Your task to perform on an android device: turn off sleep mode Image 0: 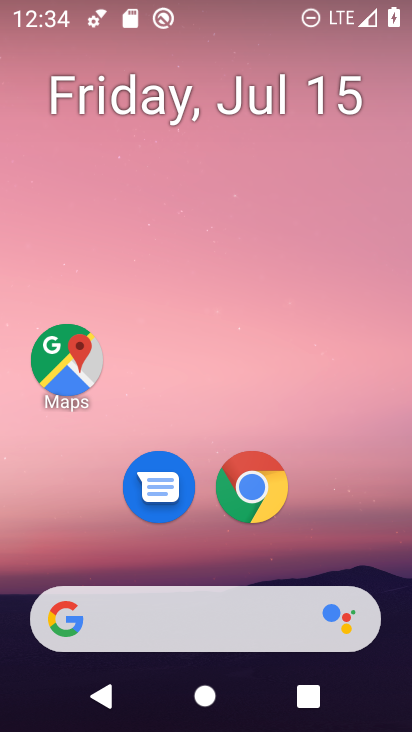
Step 0: click (404, 368)
Your task to perform on an android device: turn off sleep mode Image 1: 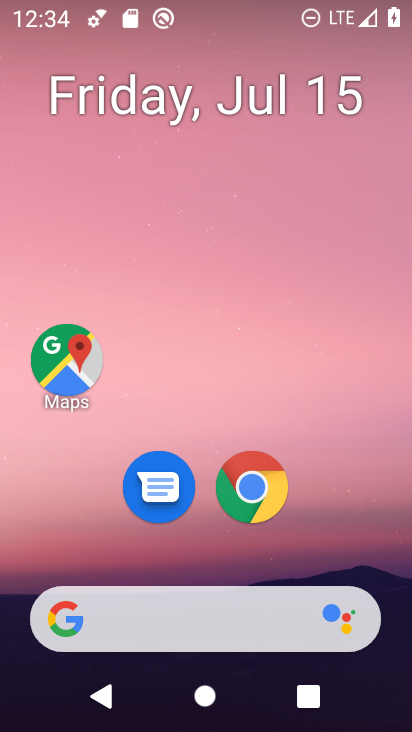
Step 1: drag from (252, 551) to (342, 155)
Your task to perform on an android device: turn off sleep mode Image 2: 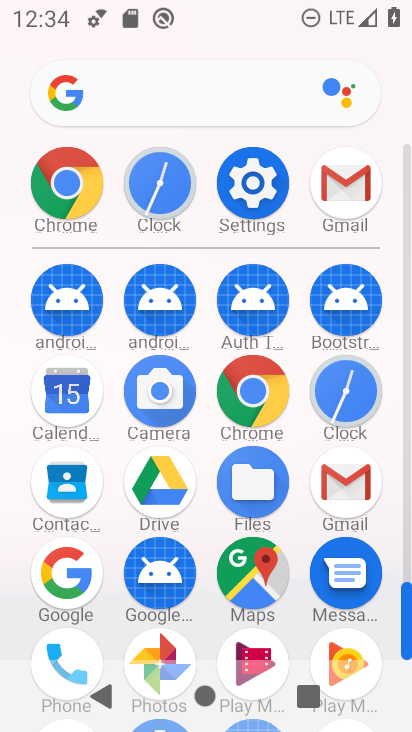
Step 2: click (266, 179)
Your task to perform on an android device: turn off sleep mode Image 3: 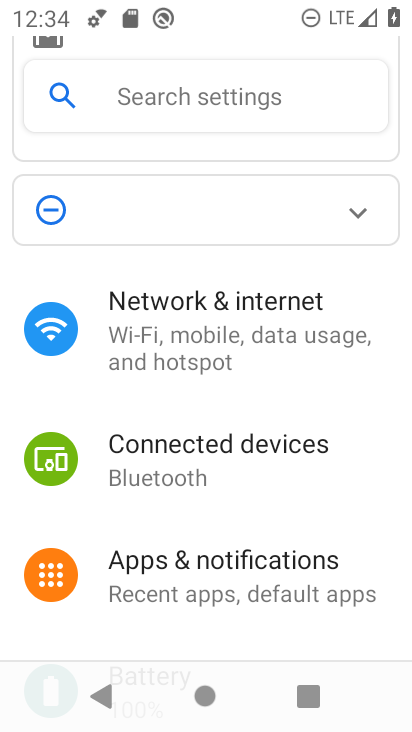
Step 3: drag from (206, 528) to (202, 175)
Your task to perform on an android device: turn off sleep mode Image 4: 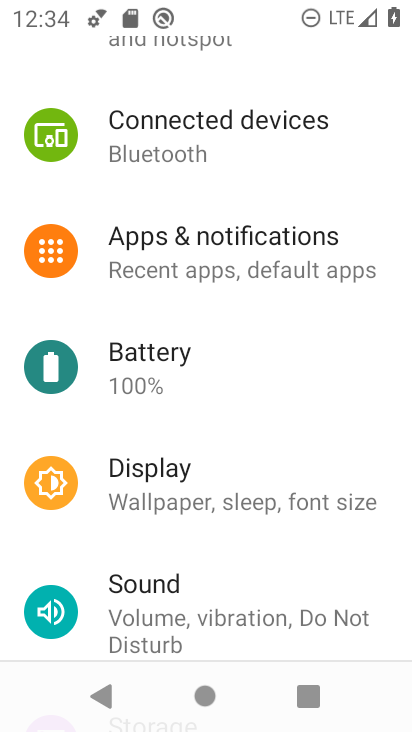
Step 4: drag from (194, 539) to (227, 340)
Your task to perform on an android device: turn off sleep mode Image 5: 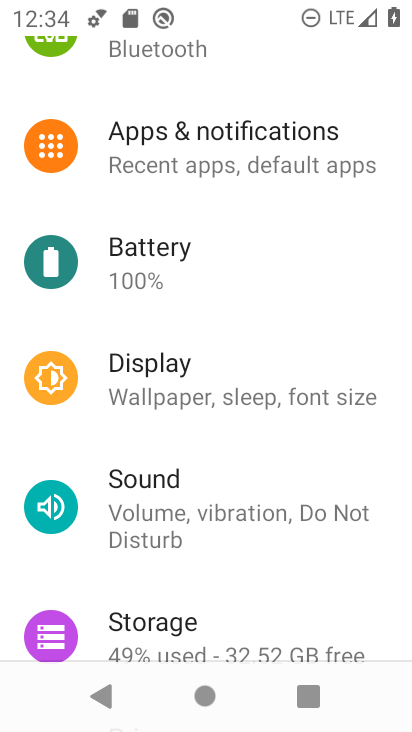
Step 5: drag from (185, 548) to (271, 211)
Your task to perform on an android device: turn off sleep mode Image 6: 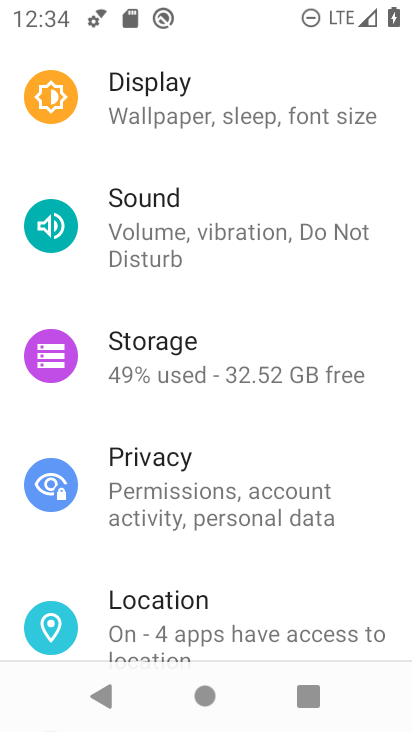
Step 6: drag from (204, 517) to (266, 140)
Your task to perform on an android device: turn off sleep mode Image 7: 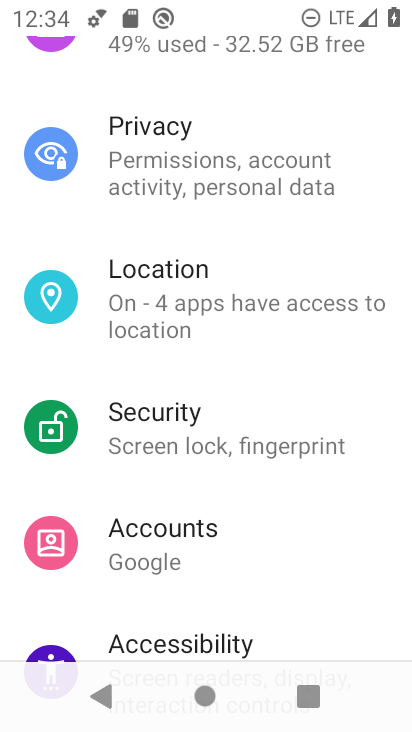
Step 7: drag from (177, 234) to (197, 642)
Your task to perform on an android device: turn off sleep mode Image 8: 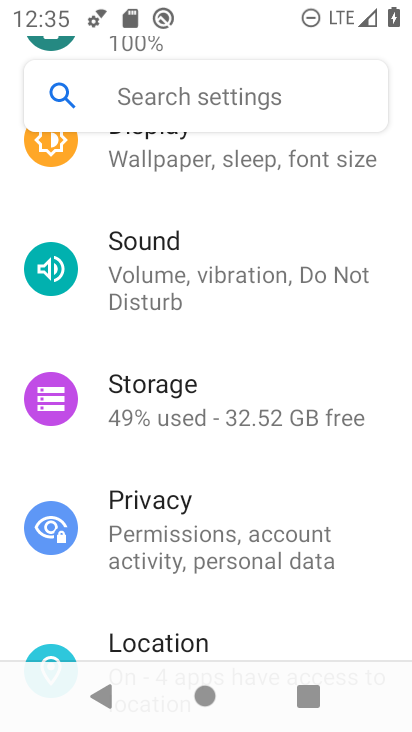
Step 8: drag from (191, 261) to (197, 729)
Your task to perform on an android device: turn off sleep mode Image 9: 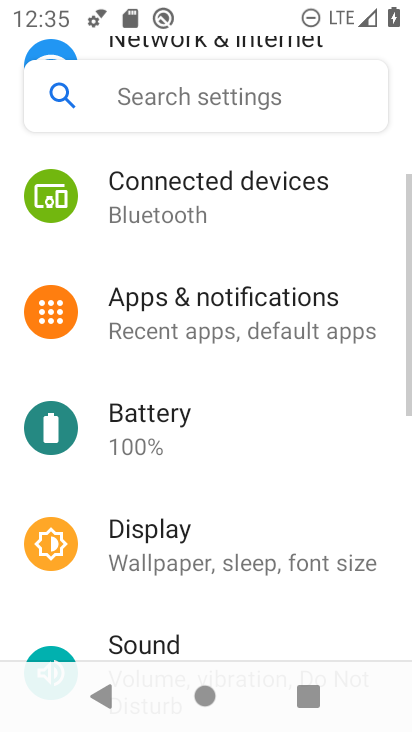
Step 9: drag from (230, 321) to (238, 682)
Your task to perform on an android device: turn off sleep mode Image 10: 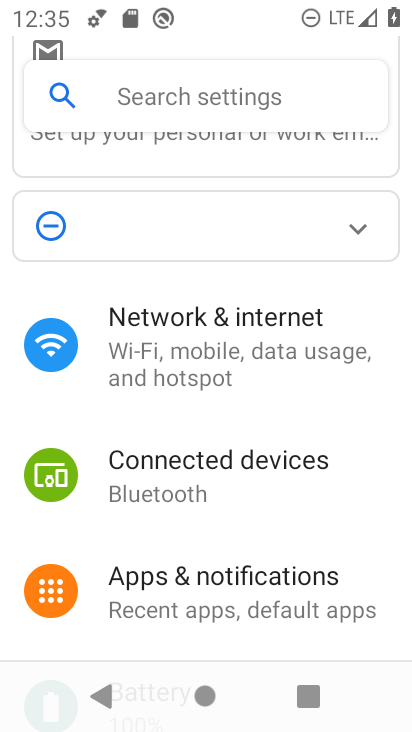
Step 10: drag from (197, 518) to (268, 149)
Your task to perform on an android device: turn off sleep mode Image 11: 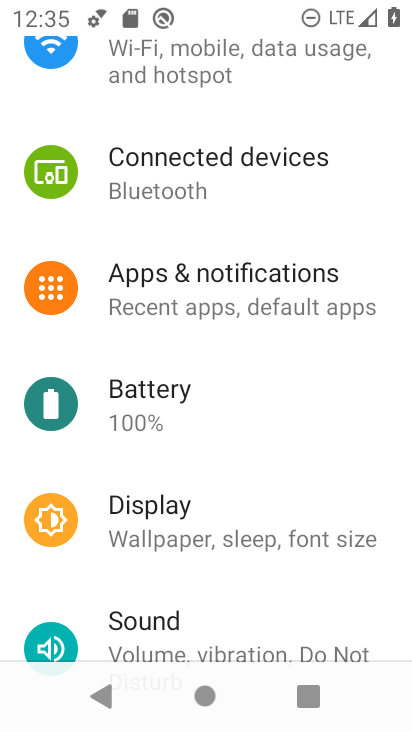
Step 11: drag from (208, 377) to (195, 668)
Your task to perform on an android device: turn off sleep mode Image 12: 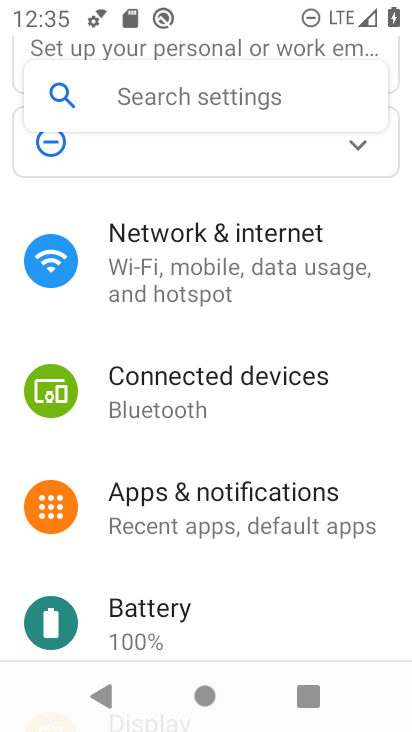
Step 12: drag from (176, 517) to (215, 192)
Your task to perform on an android device: turn off sleep mode Image 13: 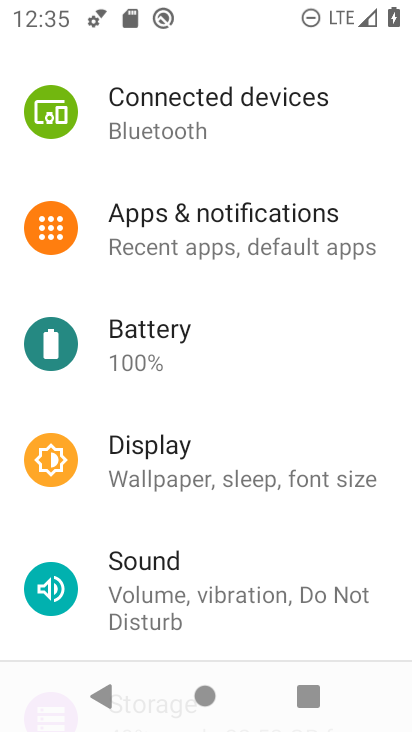
Step 13: click (225, 469)
Your task to perform on an android device: turn off sleep mode Image 14: 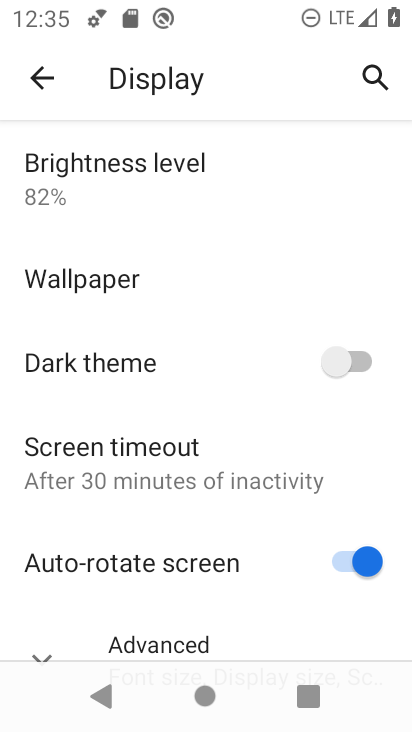
Step 14: click (167, 652)
Your task to perform on an android device: turn off sleep mode Image 15: 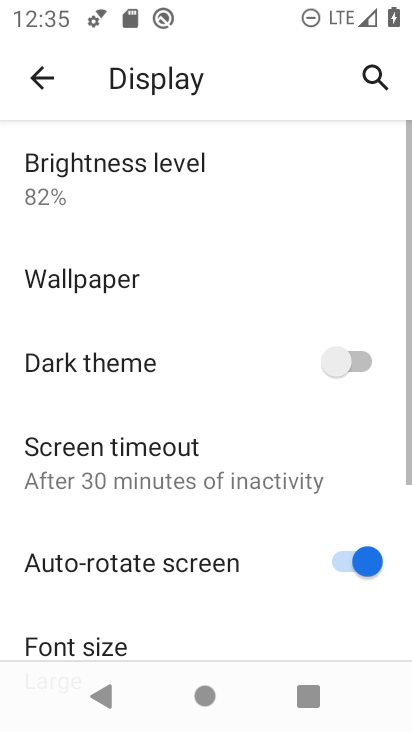
Step 15: task complete